Your task to perform on an android device: turn off picture-in-picture Image 0: 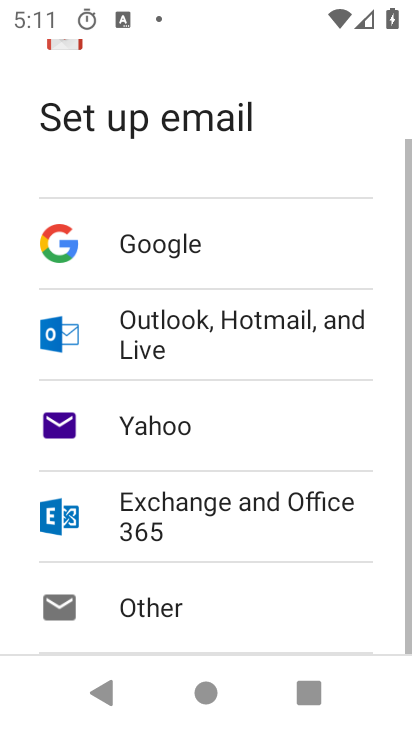
Step 0: press home button
Your task to perform on an android device: turn off picture-in-picture Image 1: 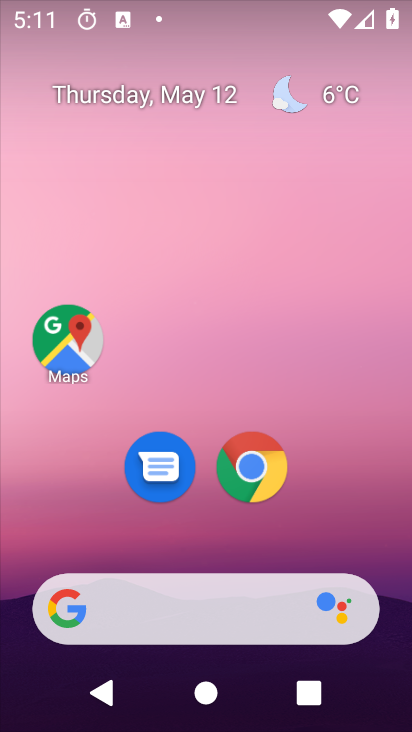
Step 1: drag from (318, 576) to (381, 5)
Your task to perform on an android device: turn off picture-in-picture Image 2: 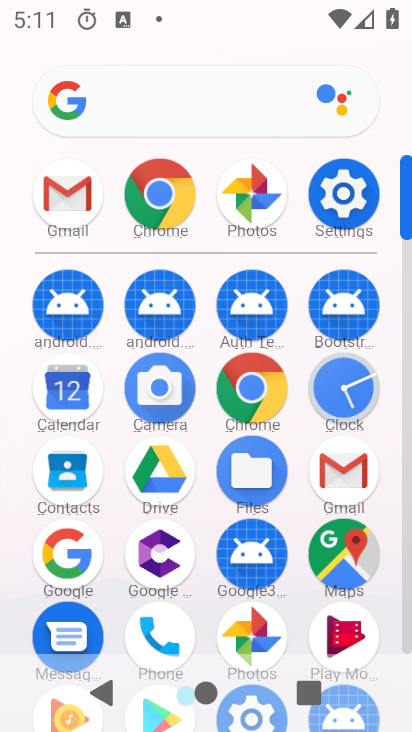
Step 2: click (344, 182)
Your task to perform on an android device: turn off picture-in-picture Image 3: 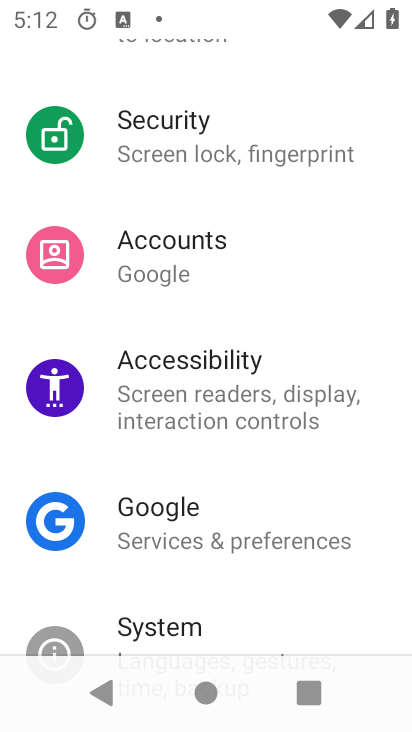
Step 3: drag from (260, 617) to (282, 136)
Your task to perform on an android device: turn off picture-in-picture Image 4: 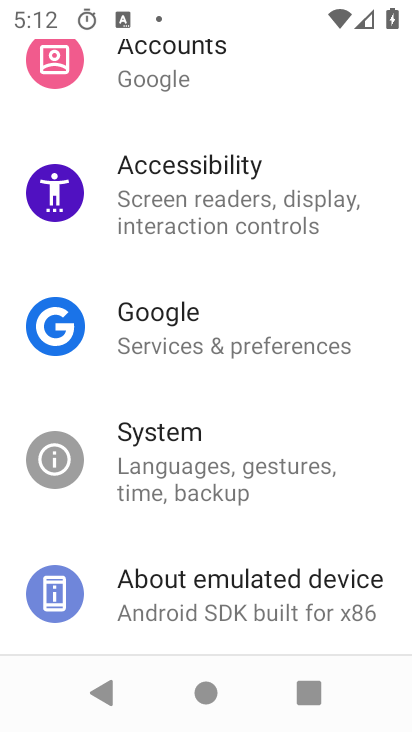
Step 4: drag from (284, 210) to (247, 729)
Your task to perform on an android device: turn off picture-in-picture Image 5: 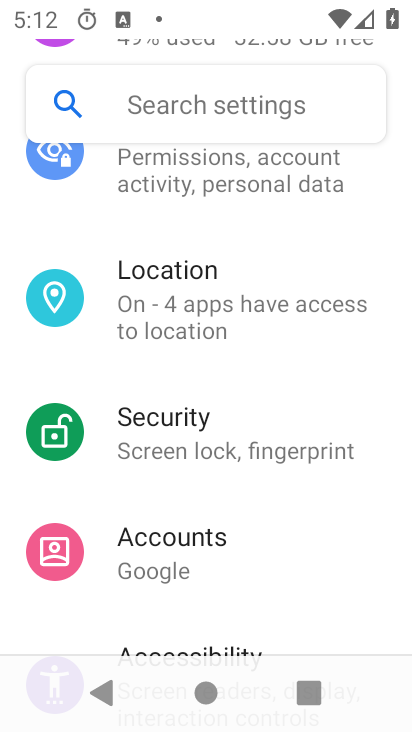
Step 5: drag from (236, 334) to (158, 687)
Your task to perform on an android device: turn off picture-in-picture Image 6: 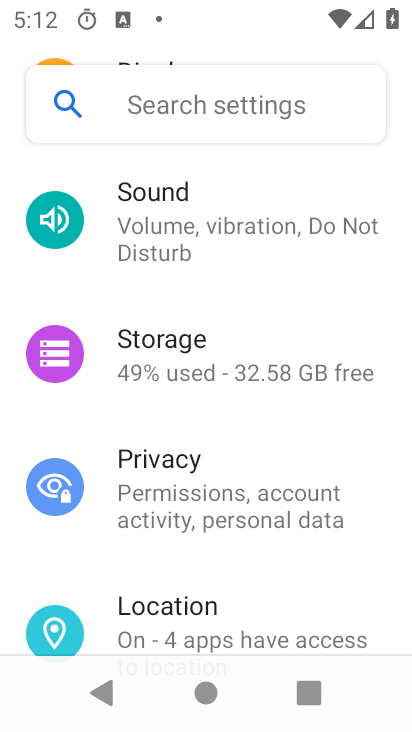
Step 6: drag from (348, 295) to (326, 572)
Your task to perform on an android device: turn off picture-in-picture Image 7: 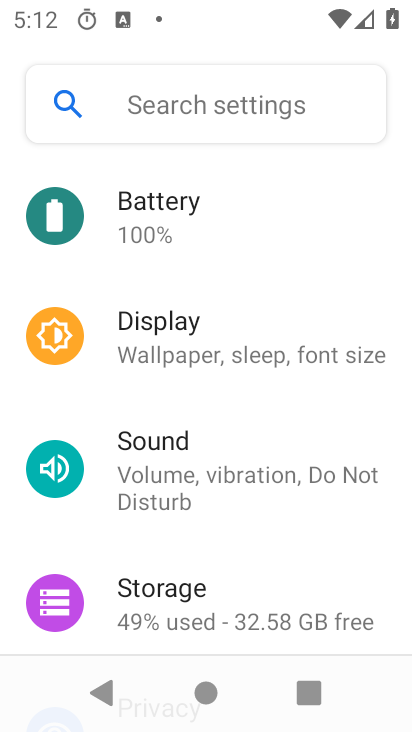
Step 7: drag from (281, 659) to (89, 726)
Your task to perform on an android device: turn off picture-in-picture Image 8: 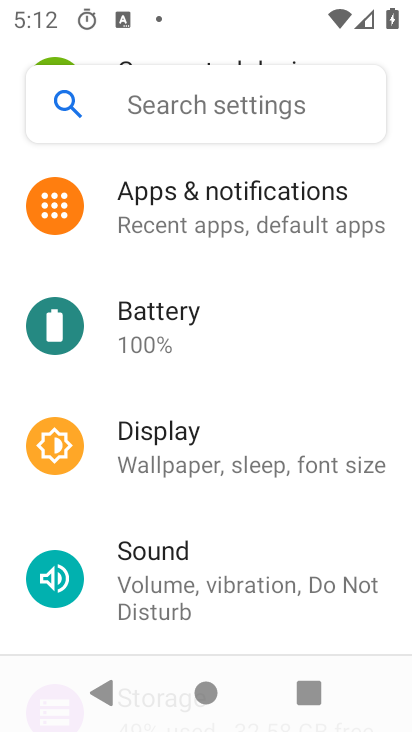
Step 8: click (252, 230)
Your task to perform on an android device: turn off picture-in-picture Image 9: 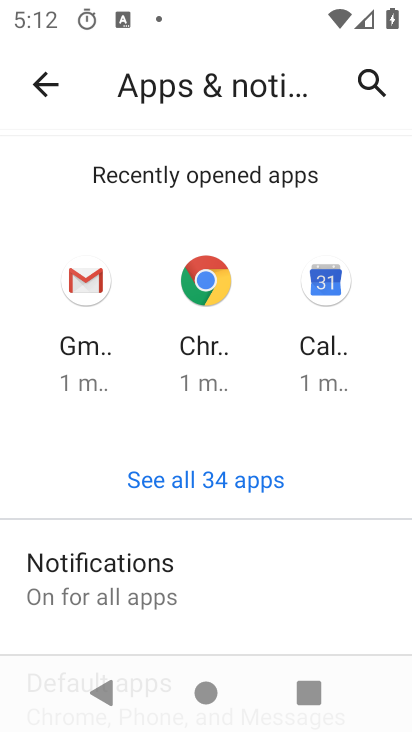
Step 9: drag from (201, 580) to (208, 125)
Your task to perform on an android device: turn off picture-in-picture Image 10: 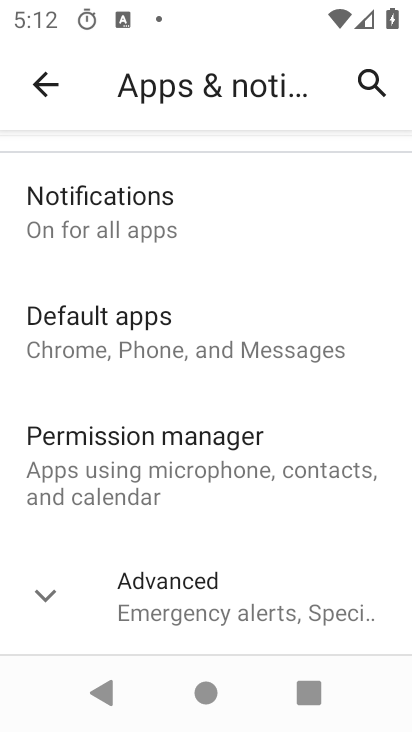
Step 10: click (170, 588)
Your task to perform on an android device: turn off picture-in-picture Image 11: 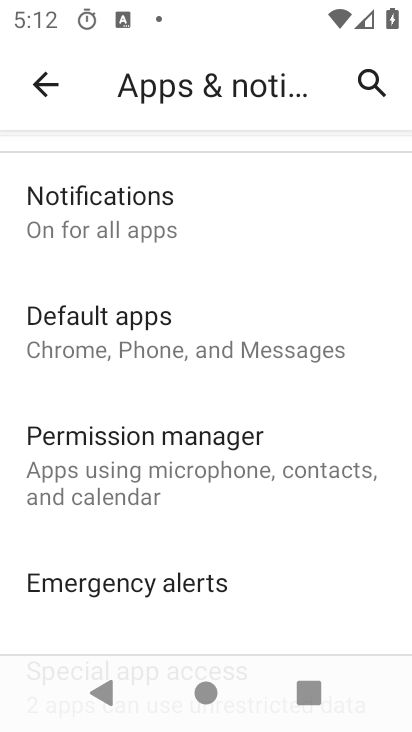
Step 11: drag from (186, 620) to (160, 99)
Your task to perform on an android device: turn off picture-in-picture Image 12: 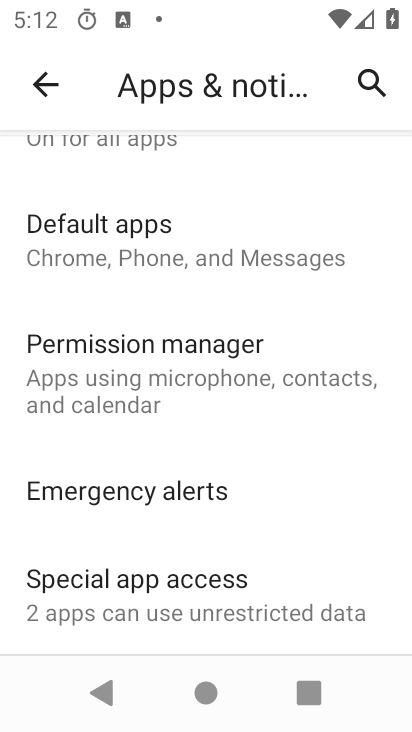
Step 12: click (55, 604)
Your task to perform on an android device: turn off picture-in-picture Image 13: 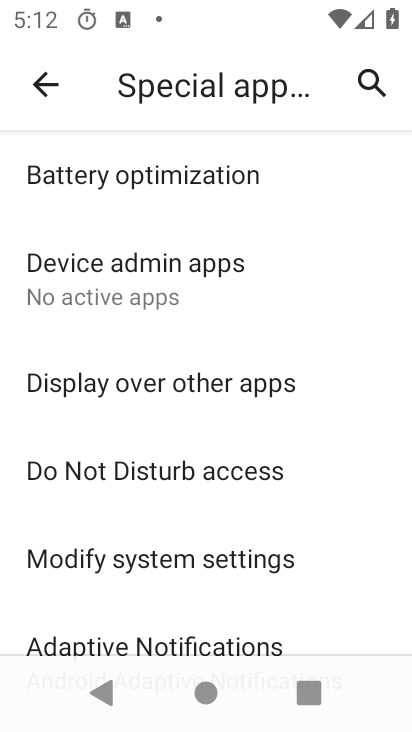
Step 13: drag from (193, 598) to (207, 113)
Your task to perform on an android device: turn off picture-in-picture Image 14: 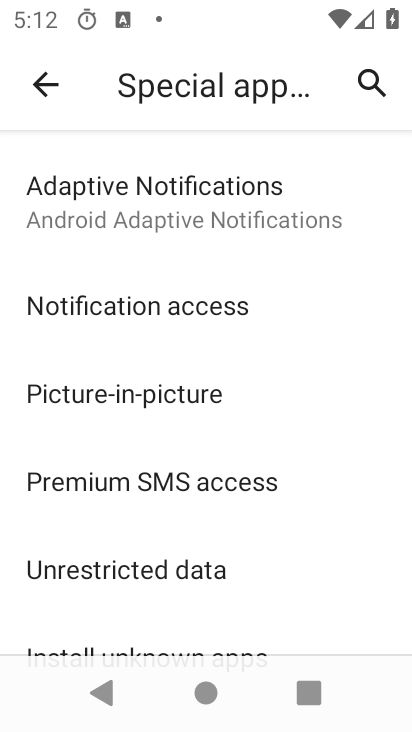
Step 14: click (243, 377)
Your task to perform on an android device: turn off picture-in-picture Image 15: 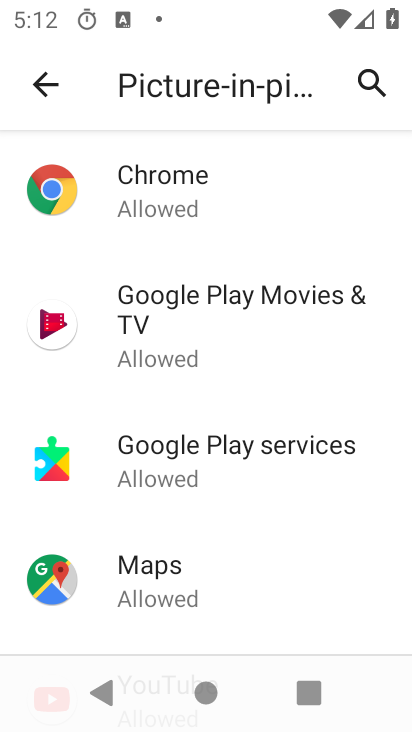
Step 15: click (182, 202)
Your task to perform on an android device: turn off picture-in-picture Image 16: 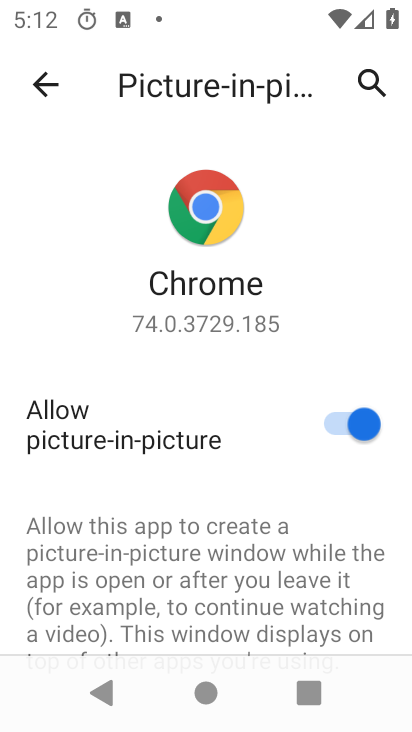
Step 16: click (335, 418)
Your task to perform on an android device: turn off picture-in-picture Image 17: 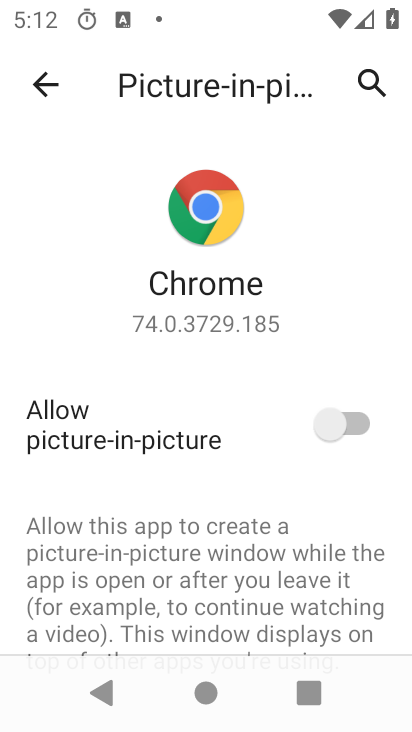
Step 17: press back button
Your task to perform on an android device: turn off picture-in-picture Image 18: 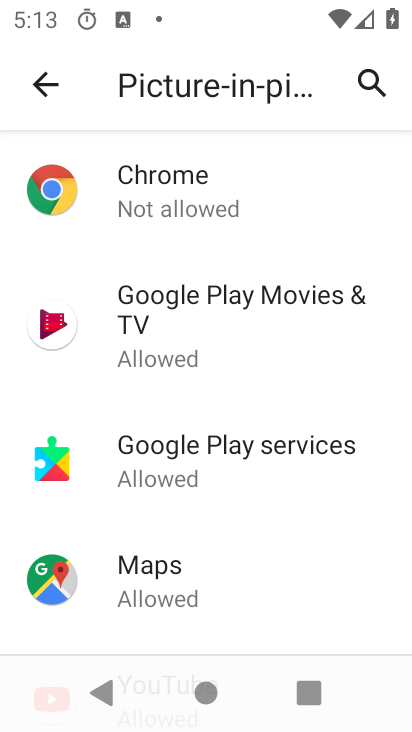
Step 18: click (294, 323)
Your task to perform on an android device: turn off picture-in-picture Image 19: 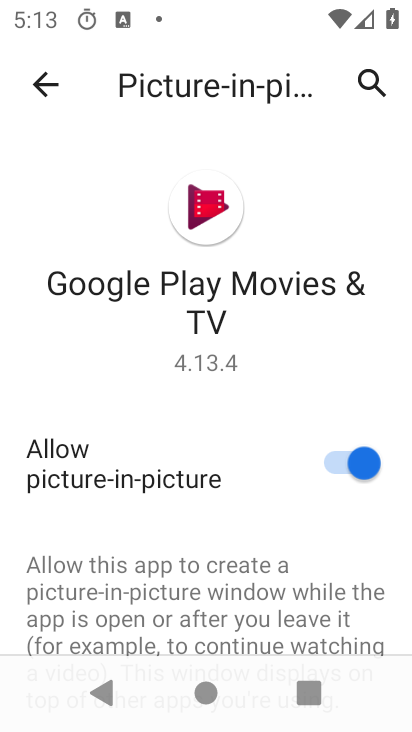
Step 19: click (330, 448)
Your task to perform on an android device: turn off picture-in-picture Image 20: 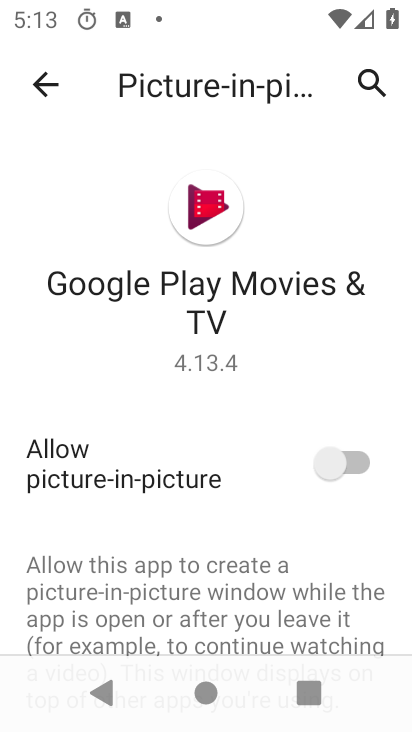
Step 20: press back button
Your task to perform on an android device: turn off picture-in-picture Image 21: 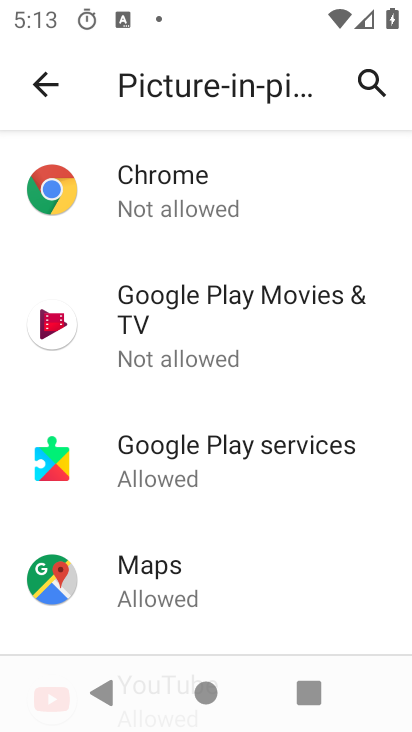
Step 21: click (205, 485)
Your task to perform on an android device: turn off picture-in-picture Image 22: 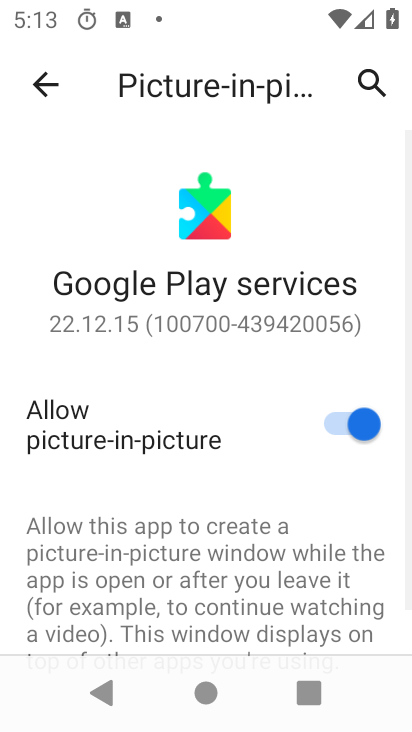
Step 22: click (325, 430)
Your task to perform on an android device: turn off picture-in-picture Image 23: 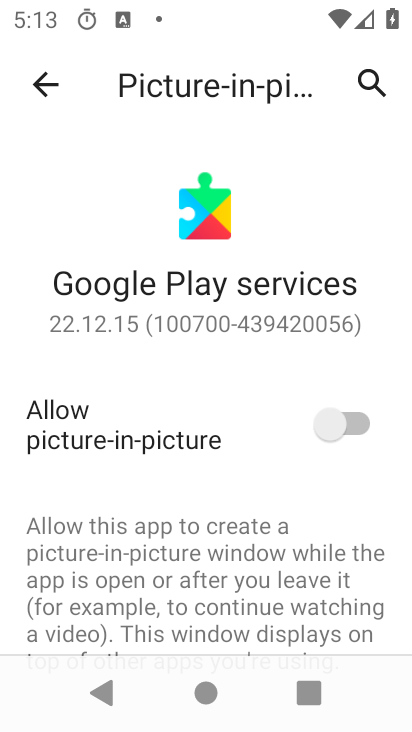
Step 23: press back button
Your task to perform on an android device: turn off picture-in-picture Image 24: 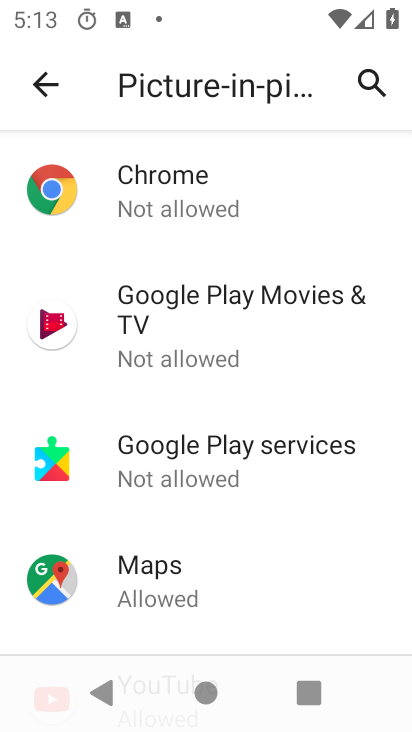
Step 24: click (240, 578)
Your task to perform on an android device: turn off picture-in-picture Image 25: 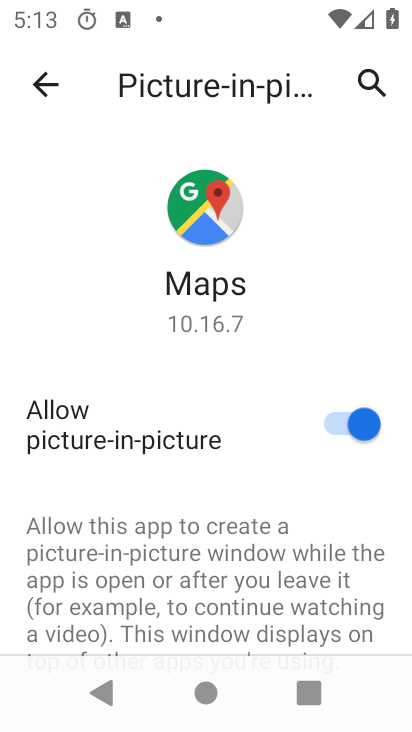
Step 25: click (340, 421)
Your task to perform on an android device: turn off picture-in-picture Image 26: 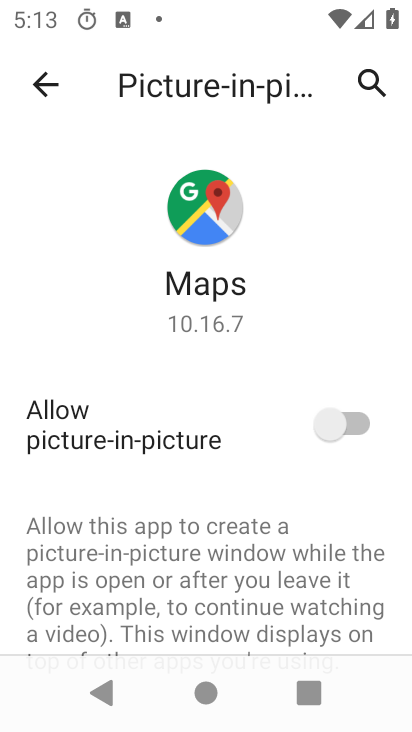
Step 26: press back button
Your task to perform on an android device: turn off picture-in-picture Image 27: 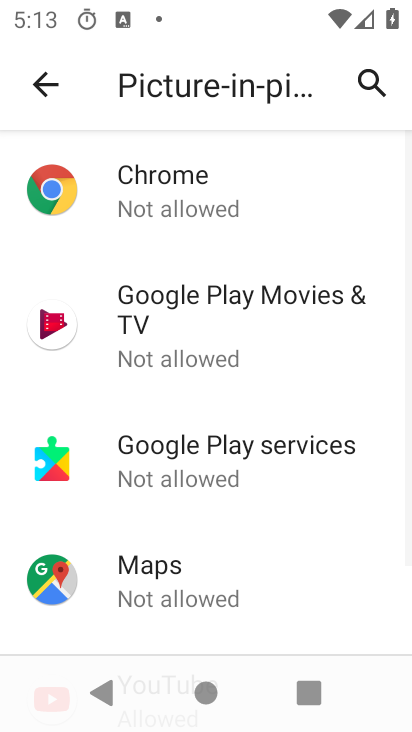
Step 27: drag from (319, 608) to (374, 81)
Your task to perform on an android device: turn off picture-in-picture Image 28: 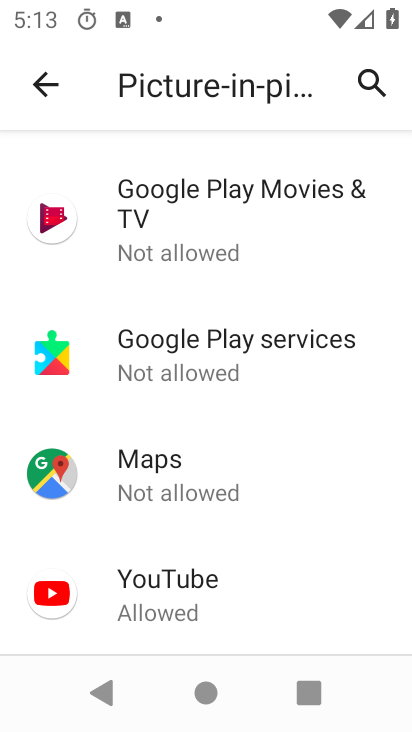
Step 28: click (202, 595)
Your task to perform on an android device: turn off picture-in-picture Image 29: 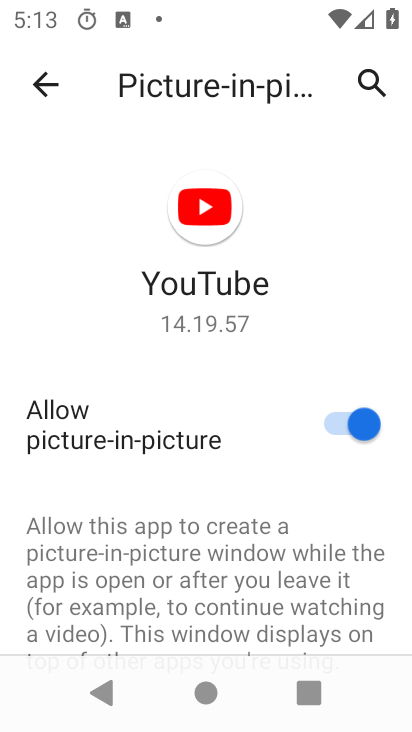
Step 29: click (333, 423)
Your task to perform on an android device: turn off picture-in-picture Image 30: 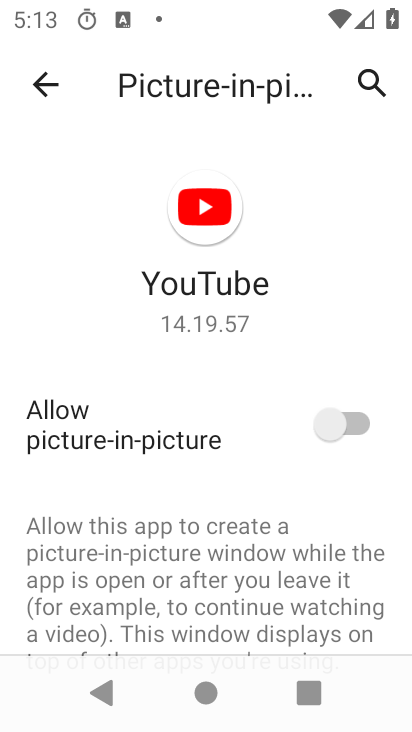
Step 30: task complete